Your task to perform on an android device: Go to display settings Image 0: 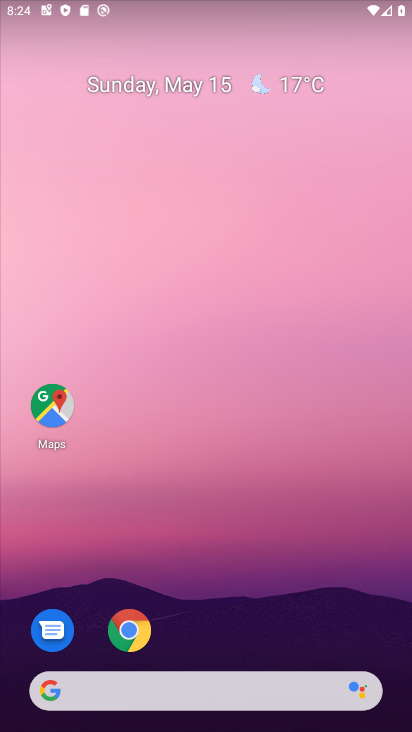
Step 0: drag from (305, 520) to (240, 0)
Your task to perform on an android device: Go to display settings Image 1: 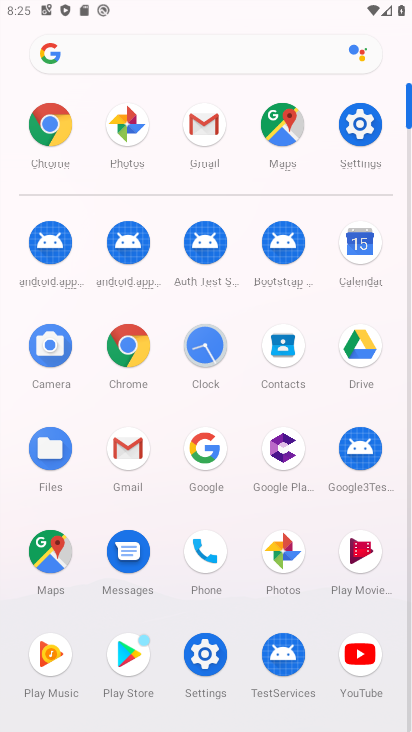
Step 1: click (354, 133)
Your task to perform on an android device: Go to display settings Image 2: 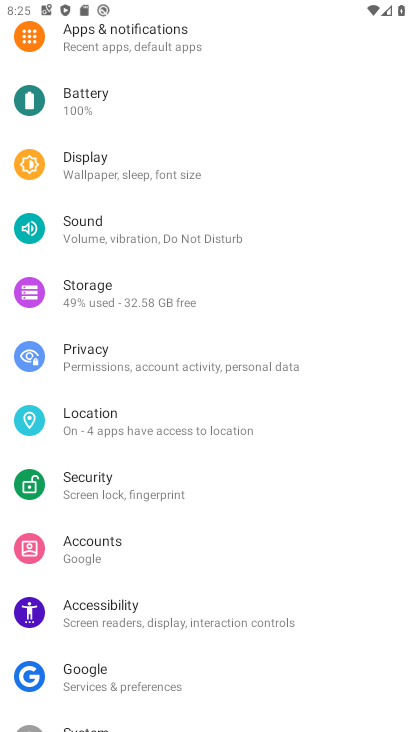
Step 2: click (94, 181)
Your task to perform on an android device: Go to display settings Image 3: 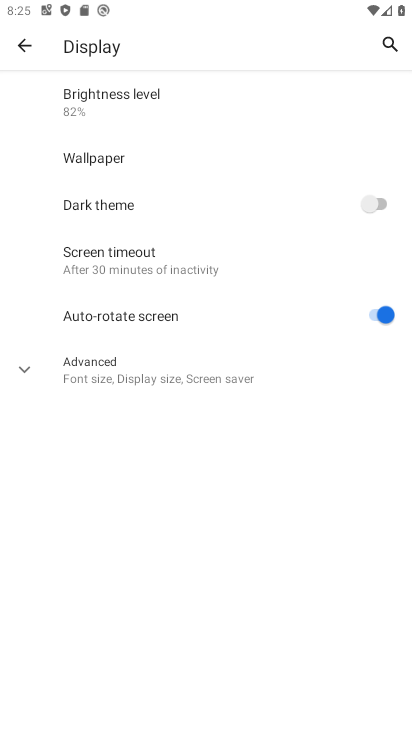
Step 3: task complete